Your task to perform on an android device: Open internet settings Image 0: 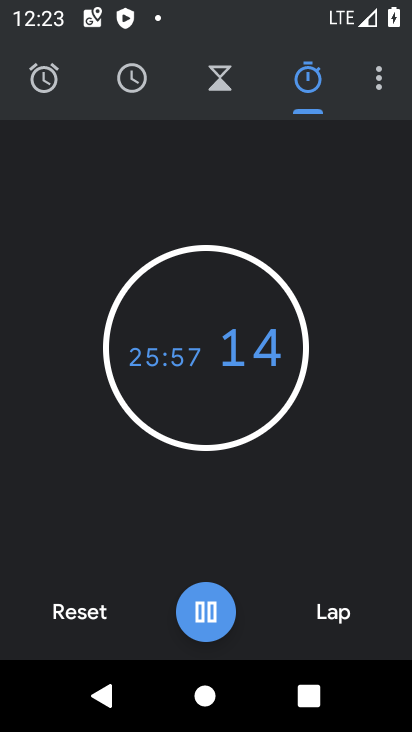
Step 0: press home button
Your task to perform on an android device: Open internet settings Image 1: 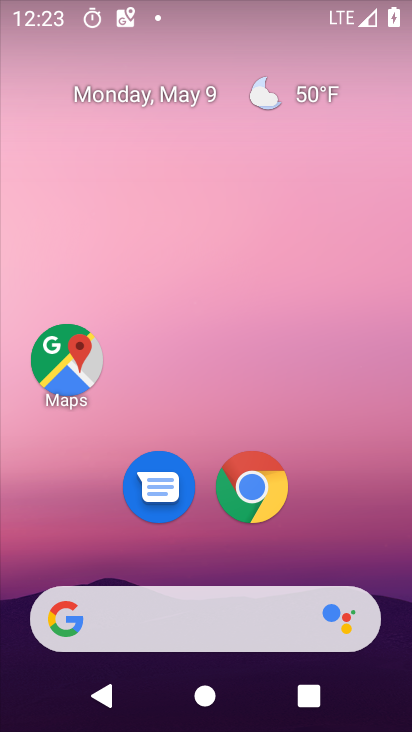
Step 1: drag from (339, 510) to (332, 131)
Your task to perform on an android device: Open internet settings Image 2: 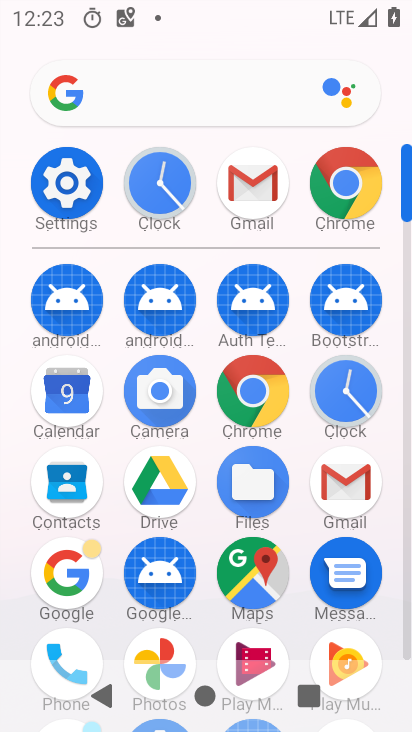
Step 2: click (78, 172)
Your task to perform on an android device: Open internet settings Image 3: 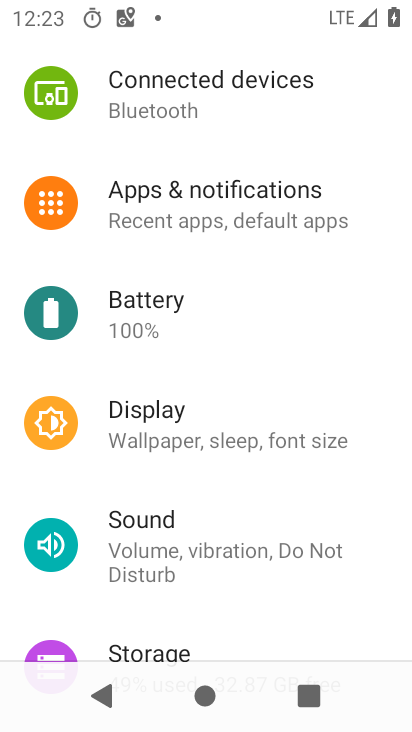
Step 3: drag from (200, 252) to (199, 482)
Your task to perform on an android device: Open internet settings Image 4: 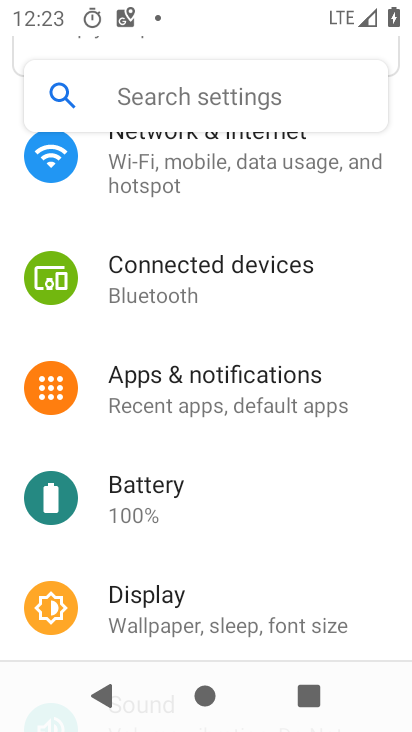
Step 4: click (231, 176)
Your task to perform on an android device: Open internet settings Image 5: 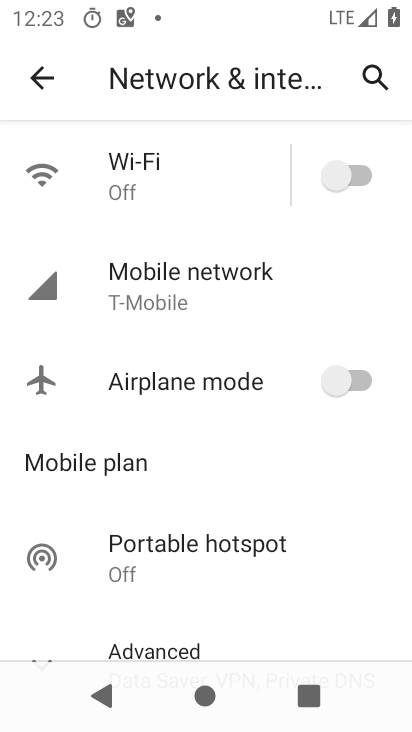
Step 5: task complete